Your task to perform on an android device: clear history in the chrome app Image 0: 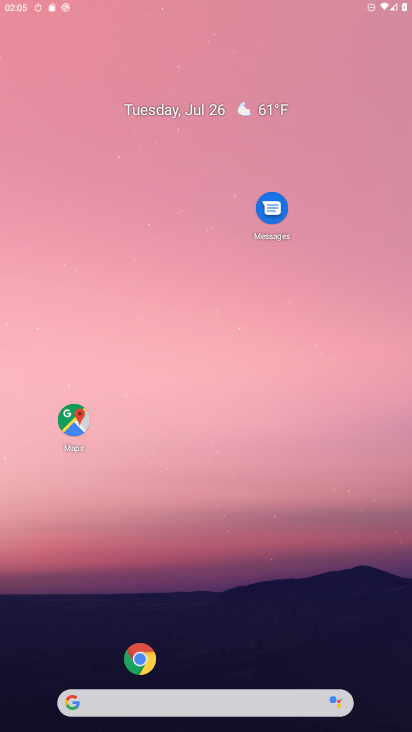
Step 0: press home button
Your task to perform on an android device: clear history in the chrome app Image 1: 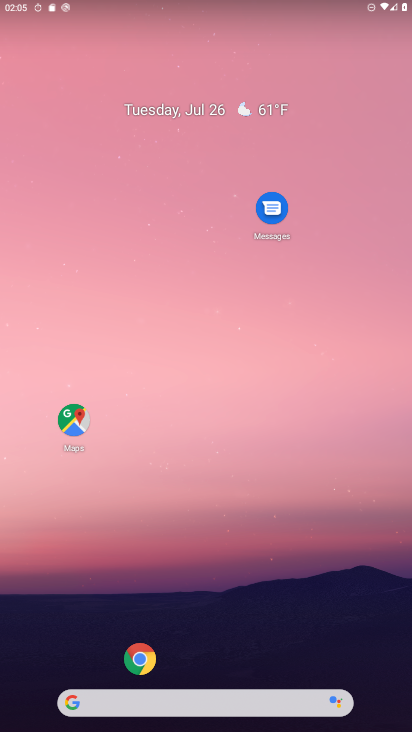
Step 1: click (144, 658)
Your task to perform on an android device: clear history in the chrome app Image 2: 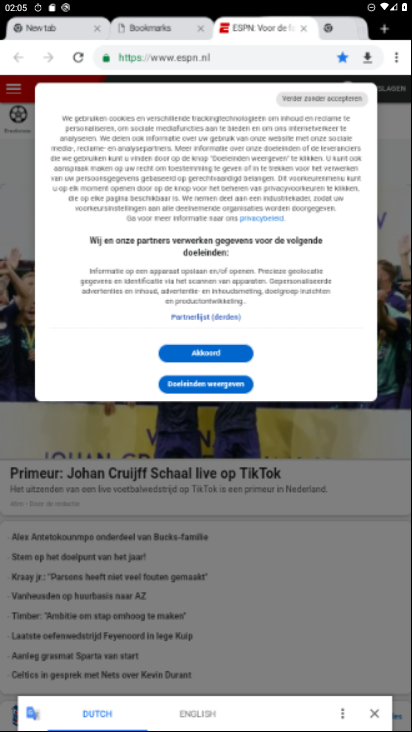
Step 2: click (392, 50)
Your task to perform on an android device: clear history in the chrome app Image 3: 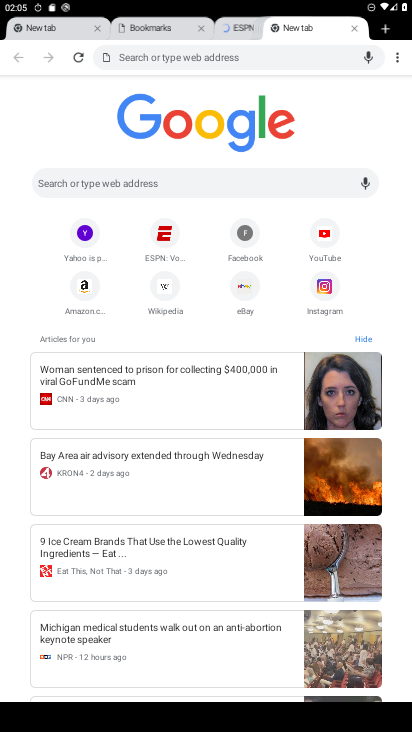
Step 3: click (396, 57)
Your task to perform on an android device: clear history in the chrome app Image 4: 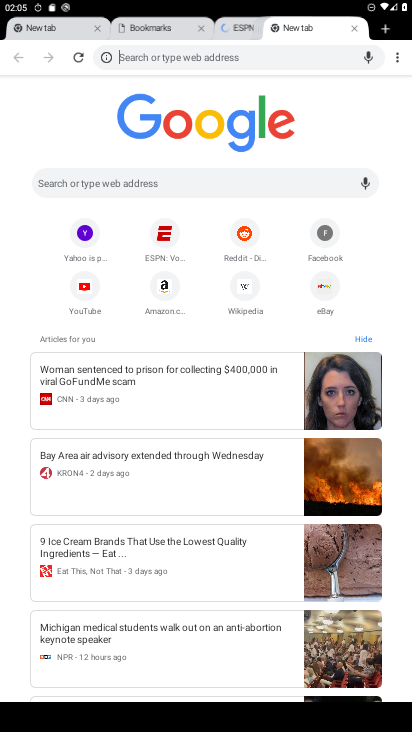
Step 4: click (401, 51)
Your task to perform on an android device: clear history in the chrome app Image 5: 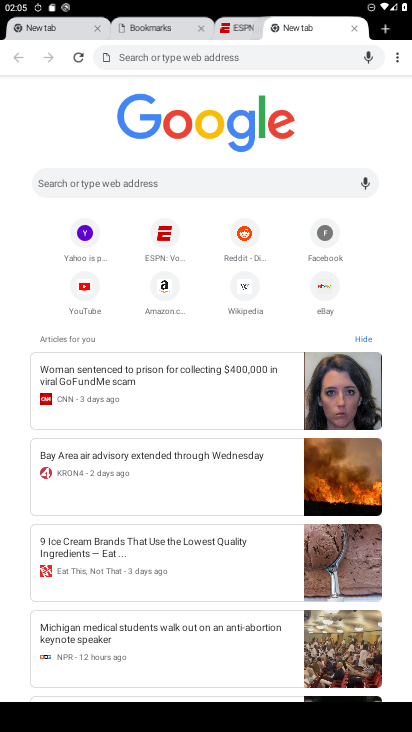
Step 5: task complete